Your task to perform on an android device: Open Youtube and go to "Your channel" Image 0: 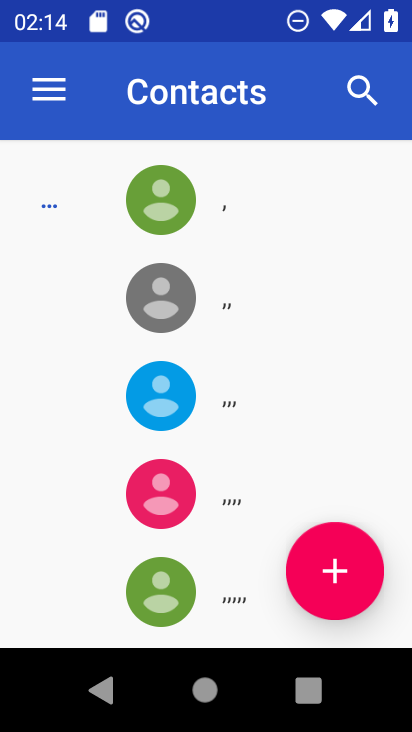
Step 0: press home button
Your task to perform on an android device: Open Youtube and go to "Your channel" Image 1: 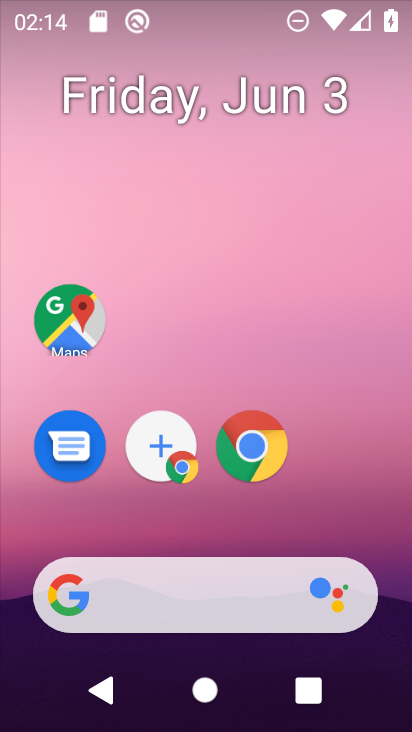
Step 1: drag from (259, 698) to (175, 42)
Your task to perform on an android device: Open Youtube and go to "Your channel" Image 2: 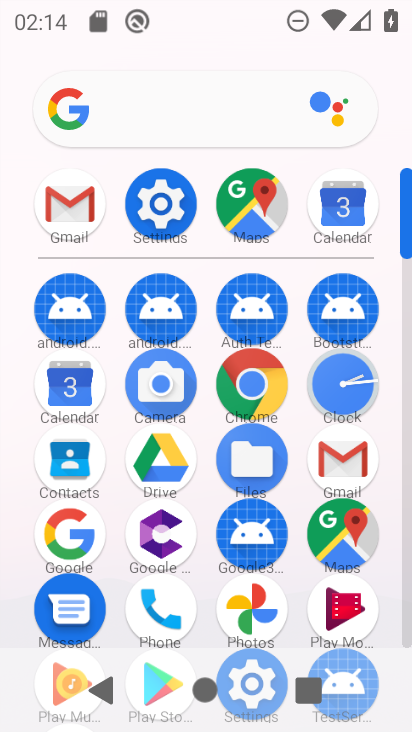
Step 2: drag from (242, 631) to (223, 264)
Your task to perform on an android device: Open Youtube and go to "Your channel" Image 3: 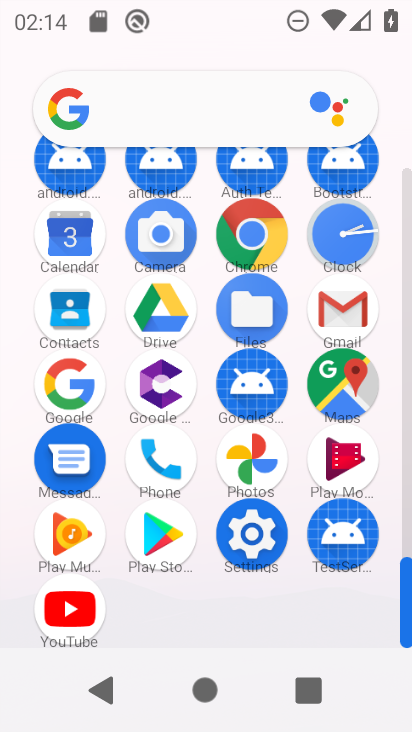
Step 3: click (79, 607)
Your task to perform on an android device: Open Youtube and go to "Your channel" Image 4: 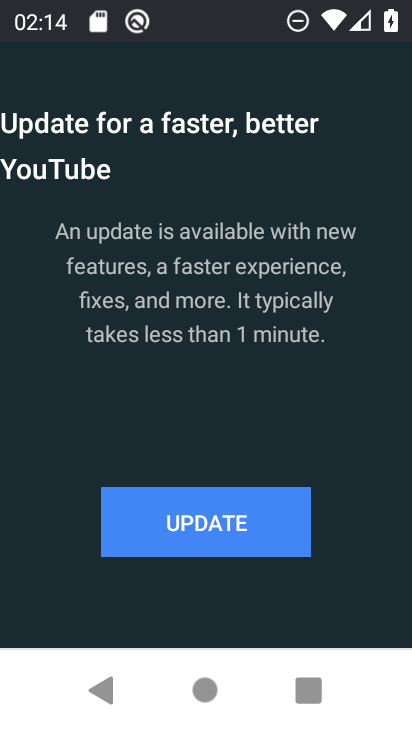
Step 4: click (270, 540)
Your task to perform on an android device: Open Youtube and go to "Your channel" Image 5: 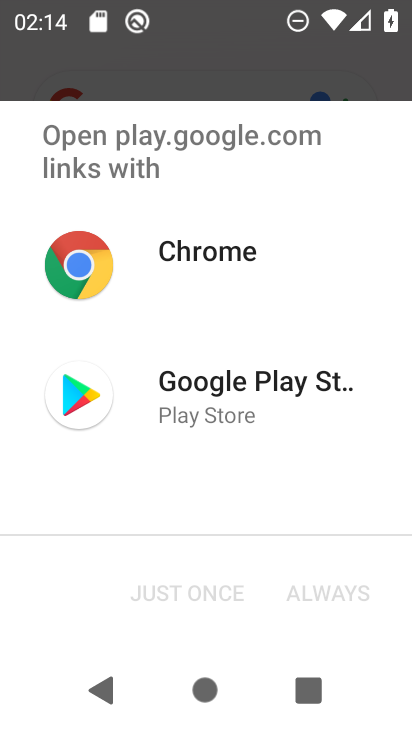
Step 5: click (268, 398)
Your task to perform on an android device: Open Youtube and go to "Your channel" Image 6: 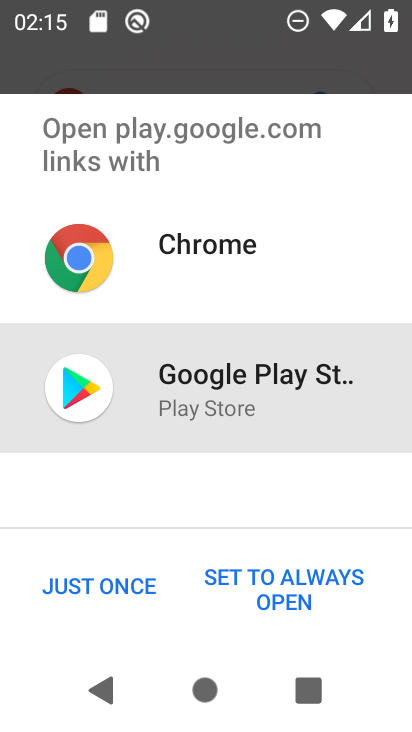
Step 6: click (138, 584)
Your task to perform on an android device: Open Youtube and go to "Your channel" Image 7: 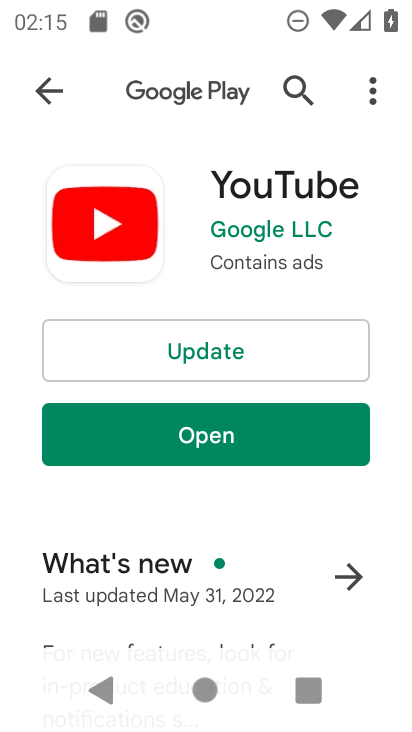
Step 7: click (296, 362)
Your task to perform on an android device: Open Youtube and go to "Your channel" Image 8: 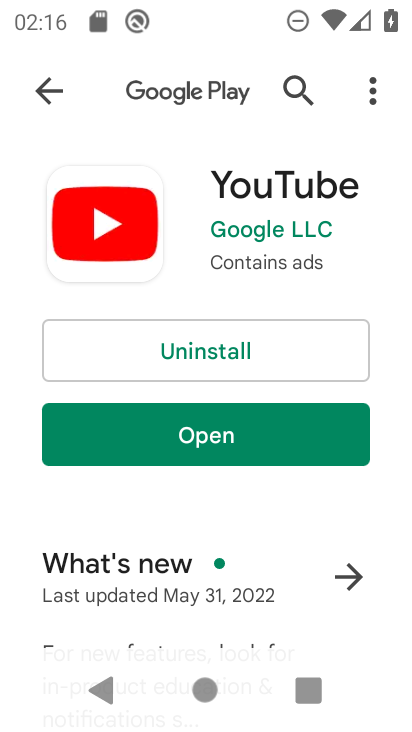
Step 8: click (374, 436)
Your task to perform on an android device: Open Youtube and go to "Your channel" Image 9: 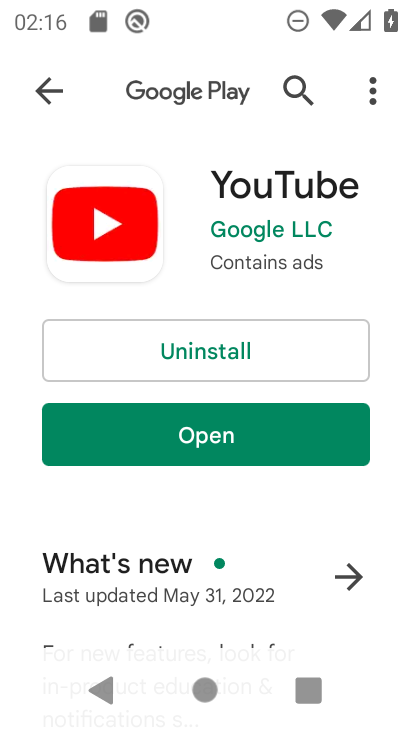
Step 9: click (337, 431)
Your task to perform on an android device: Open Youtube and go to "Your channel" Image 10: 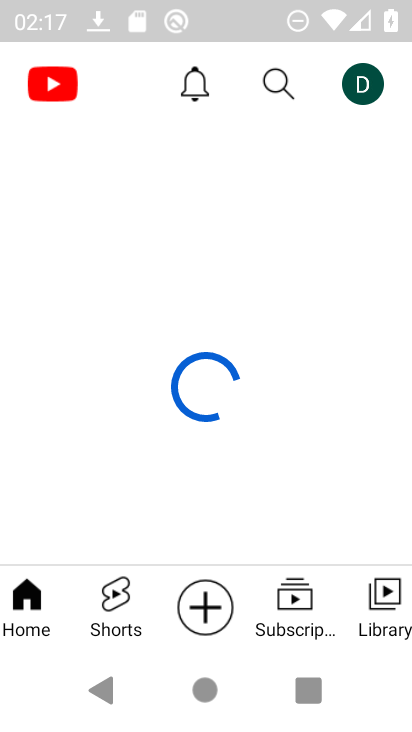
Step 10: click (378, 91)
Your task to perform on an android device: Open Youtube and go to "Your channel" Image 11: 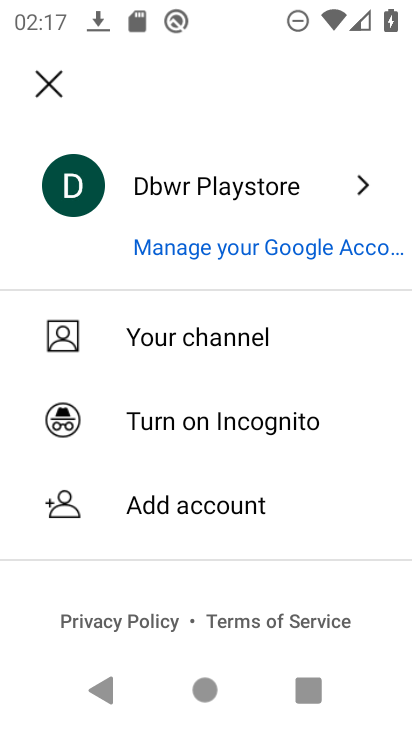
Step 11: click (243, 345)
Your task to perform on an android device: Open Youtube and go to "Your channel" Image 12: 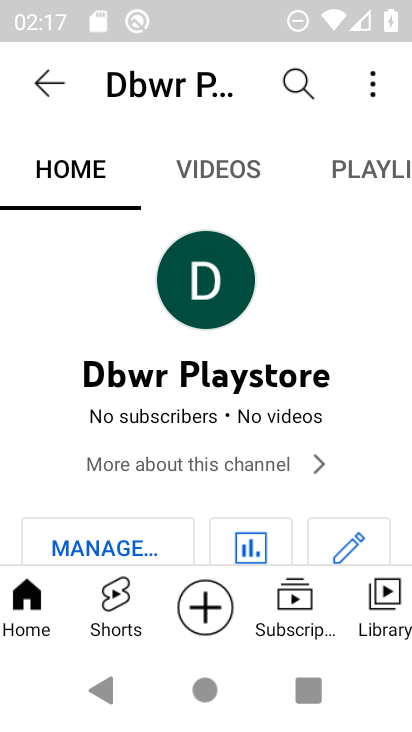
Step 12: task complete